Your task to perform on an android device: delete the emails in spam in the gmail app Image 0: 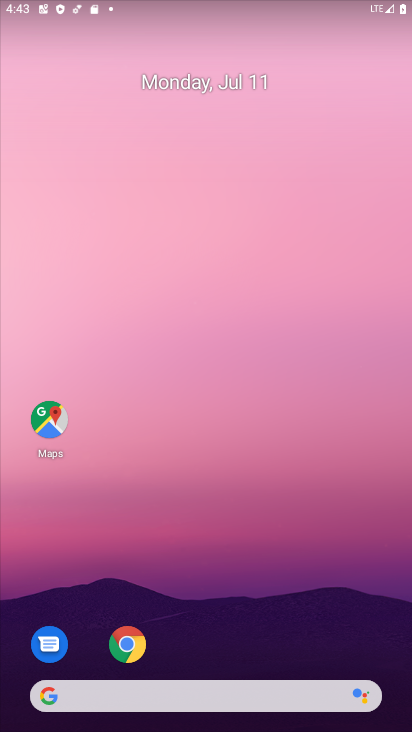
Step 0: drag from (283, 635) to (298, 0)
Your task to perform on an android device: delete the emails in spam in the gmail app Image 1: 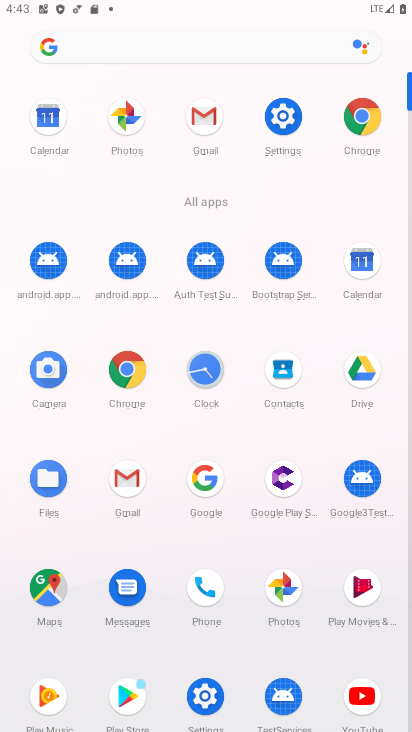
Step 1: click (205, 144)
Your task to perform on an android device: delete the emails in spam in the gmail app Image 2: 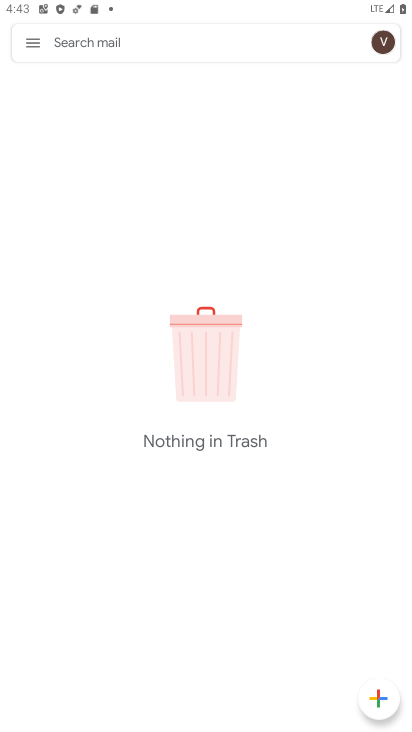
Step 2: click (29, 45)
Your task to perform on an android device: delete the emails in spam in the gmail app Image 3: 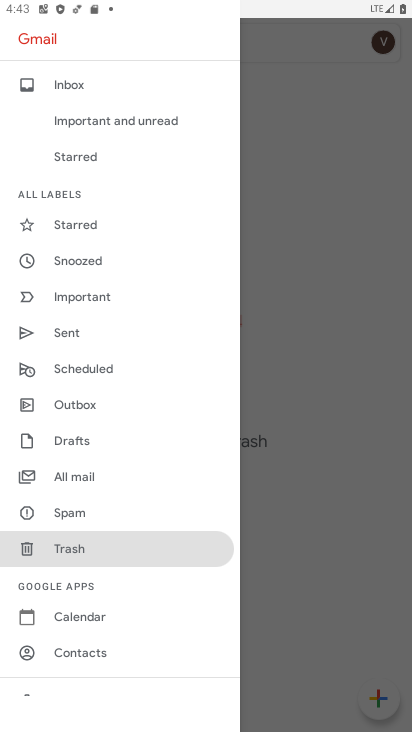
Step 3: click (104, 514)
Your task to perform on an android device: delete the emails in spam in the gmail app Image 4: 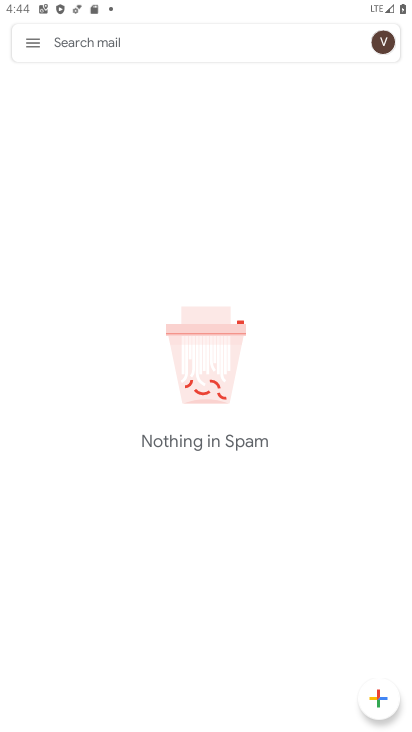
Step 4: task complete